Your task to perform on an android device: toggle notifications settings in the gmail app Image 0: 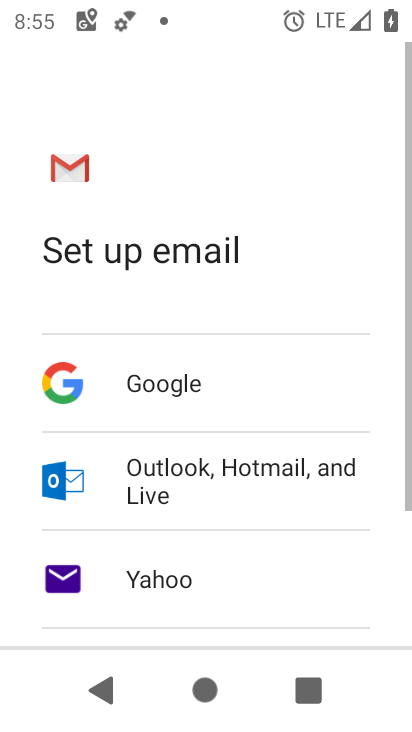
Step 0: press home button
Your task to perform on an android device: toggle notifications settings in the gmail app Image 1: 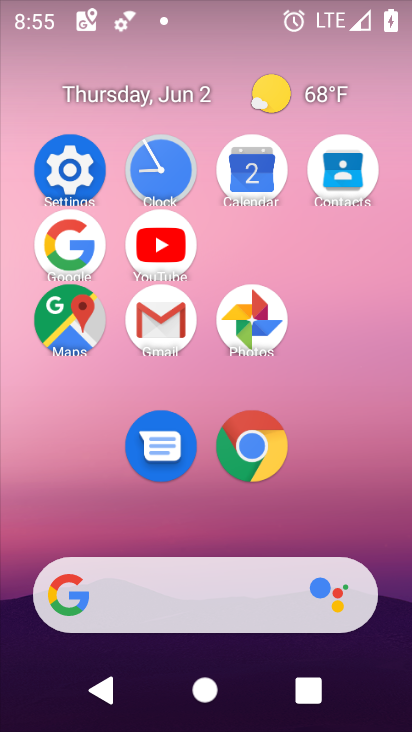
Step 1: click (161, 304)
Your task to perform on an android device: toggle notifications settings in the gmail app Image 2: 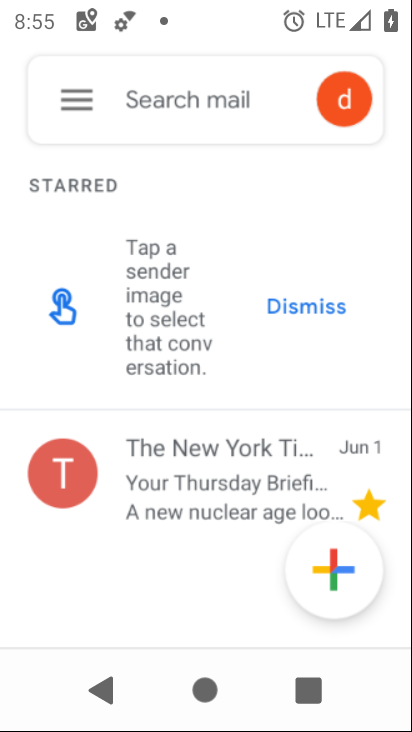
Step 2: click (74, 120)
Your task to perform on an android device: toggle notifications settings in the gmail app Image 3: 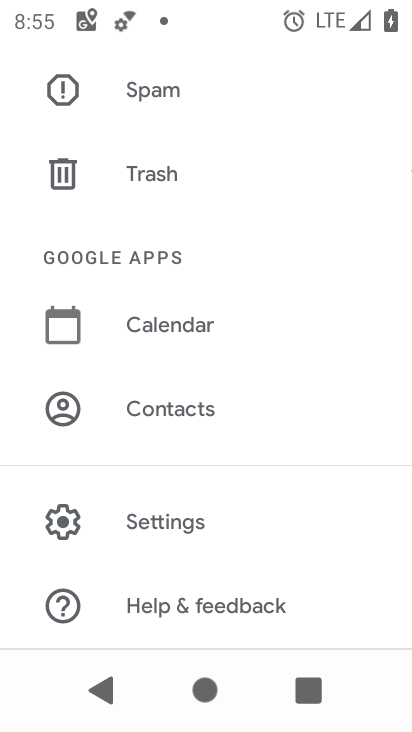
Step 3: click (234, 527)
Your task to perform on an android device: toggle notifications settings in the gmail app Image 4: 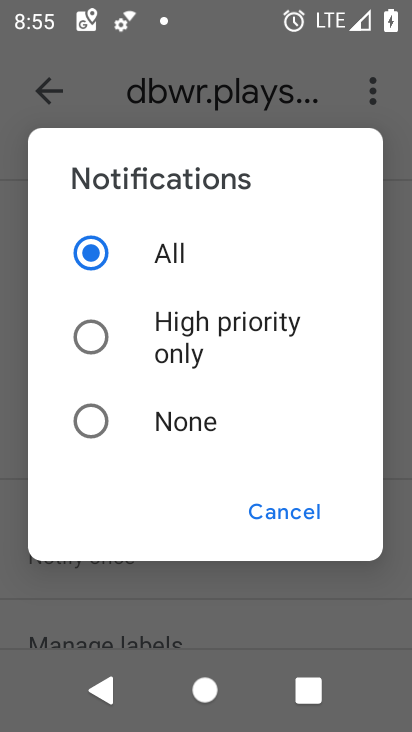
Step 4: click (168, 348)
Your task to perform on an android device: toggle notifications settings in the gmail app Image 5: 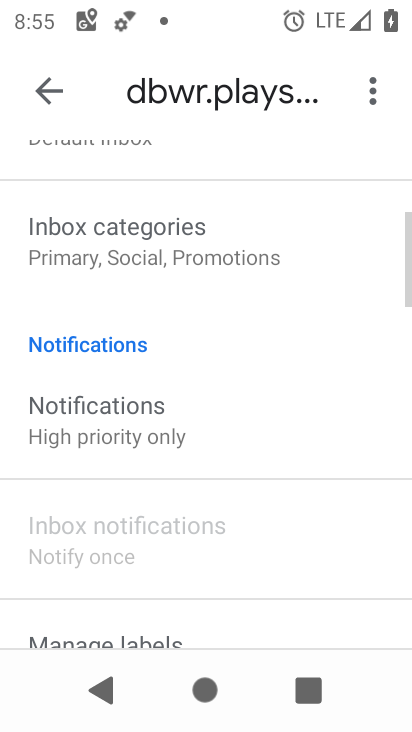
Step 5: task complete